Your task to perform on an android device: toggle improve location accuracy Image 0: 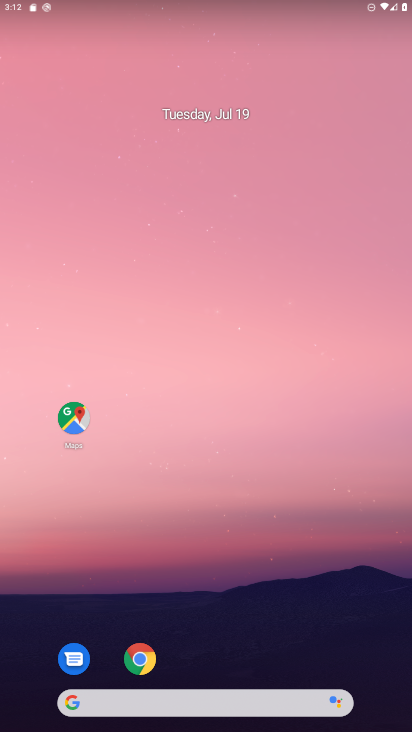
Step 0: drag from (260, 622) to (309, 97)
Your task to perform on an android device: toggle improve location accuracy Image 1: 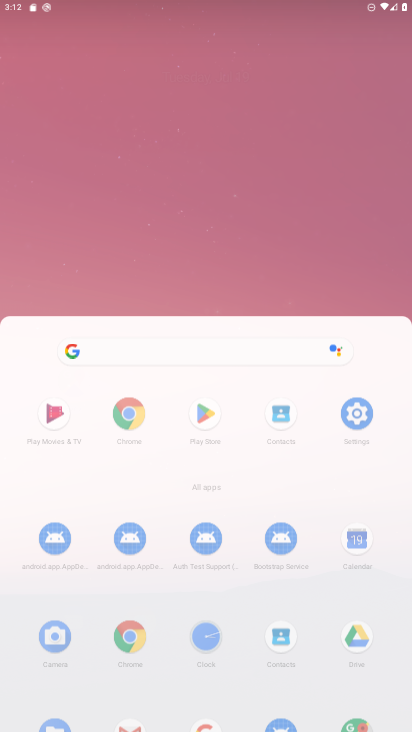
Step 1: click (309, 97)
Your task to perform on an android device: toggle improve location accuracy Image 2: 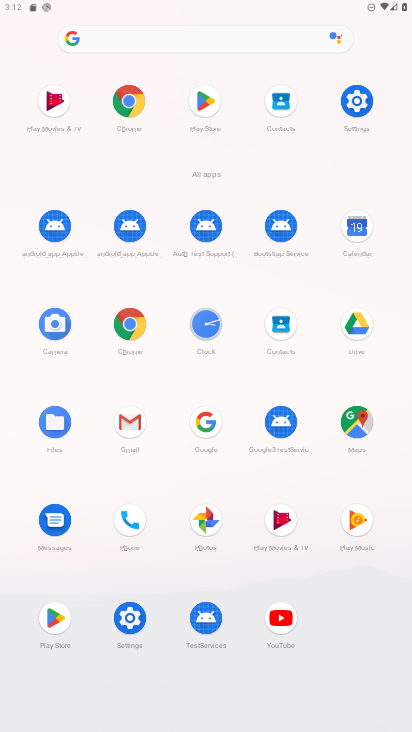
Step 2: click (367, 97)
Your task to perform on an android device: toggle improve location accuracy Image 3: 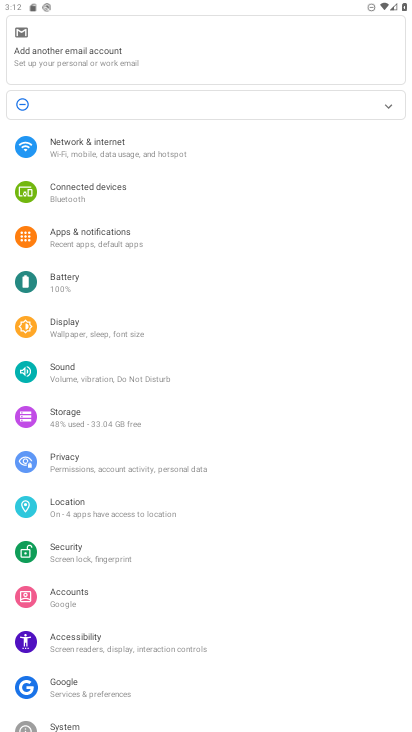
Step 3: click (99, 506)
Your task to perform on an android device: toggle improve location accuracy Image 4: 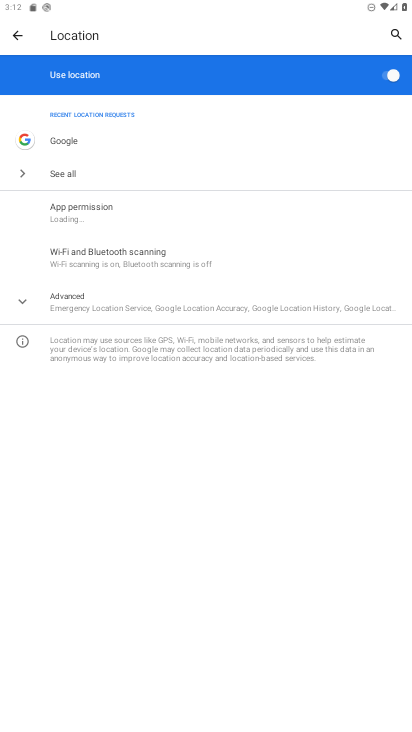
Step 4: click (207, 301)
Your task to perform on an android device: toggle improve location accuracy Image 5: 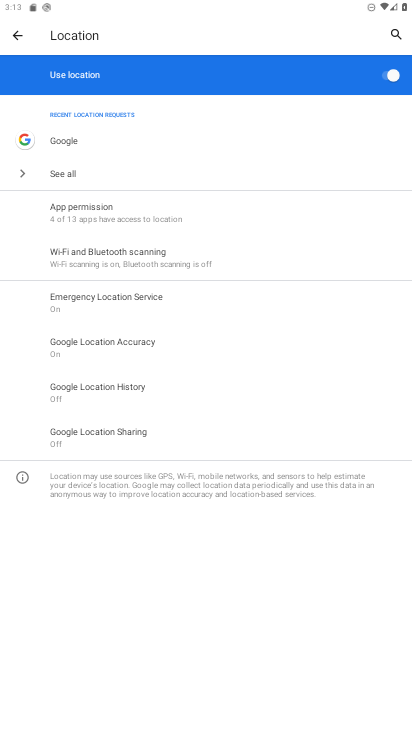
Step 5: click (89, 348)
Your task to perform on an android device: toggle improve location accuracy Image 6: 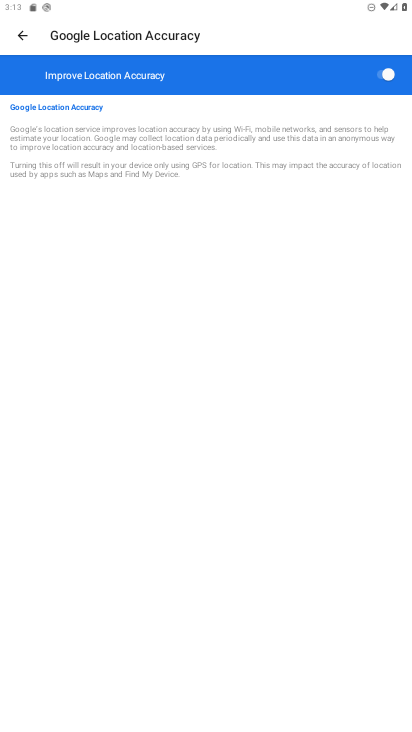
Step 6: click (387, 77)
Your task to perform on an android device: toggle improve location accuracy Image 7: 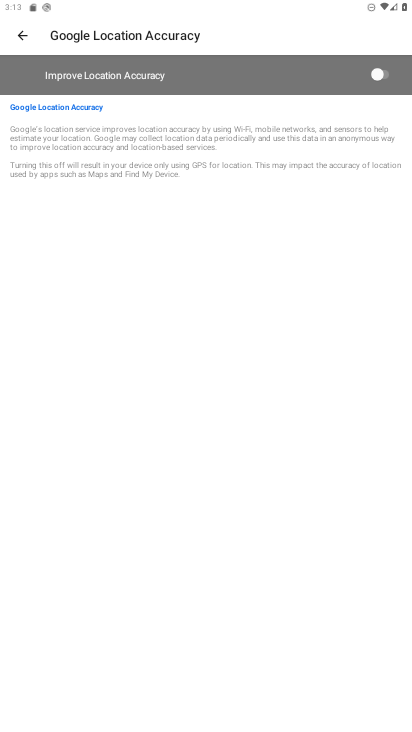
Step 7: task complete